Your task to perform on an android device: When is my next meeting? Image 0: 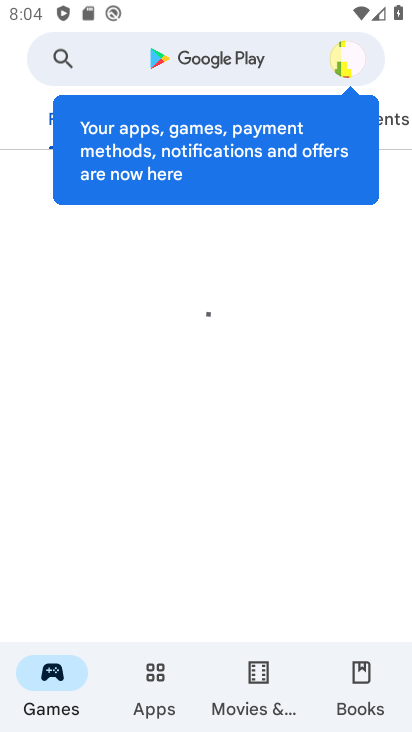
Step 0: press home button
Your task to perform on an android device: When is my next meeting? Image 1: 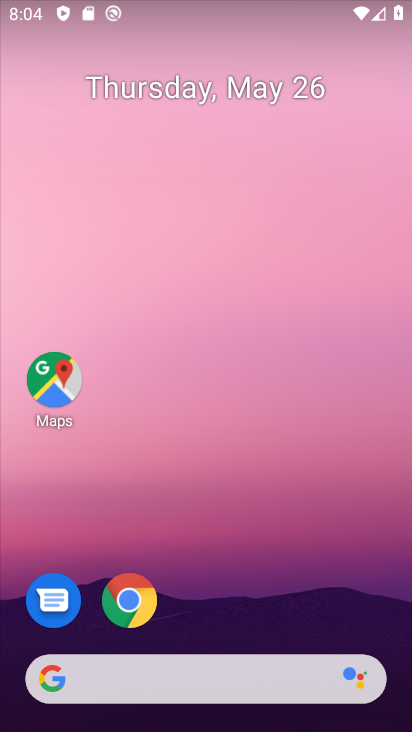
Step 1: click (259, 93)
Your task to perform on an android device: When is my next meeting? Image 2: 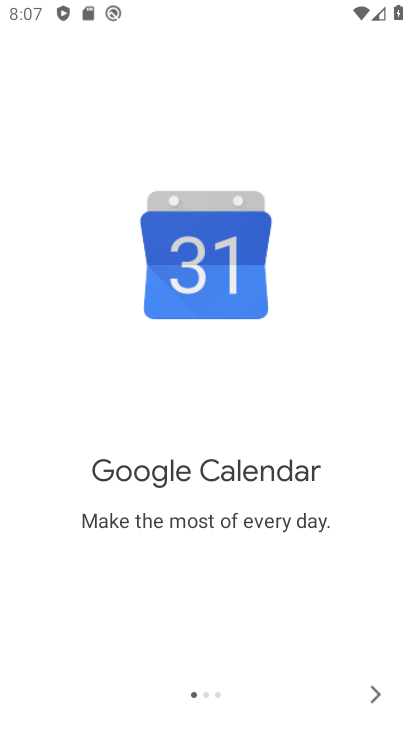
Step 2: task complete